Your task to perform on an android device: Turn on the flashlight Image 0: 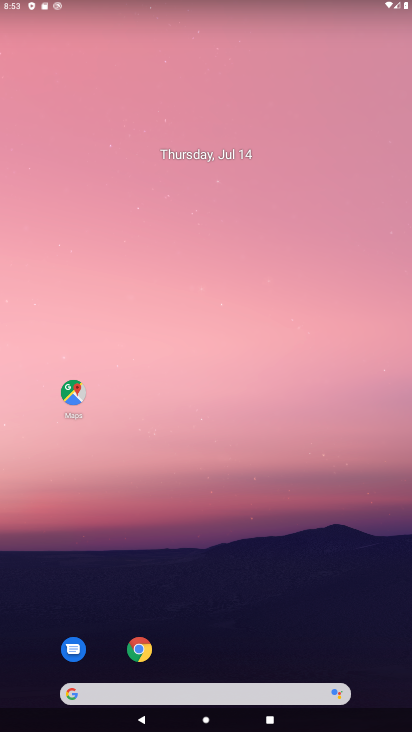
Step 0: drag from (232, 333) to (201, 96)
Your task to perform on an android device: Turn on the flashlight Image 1: 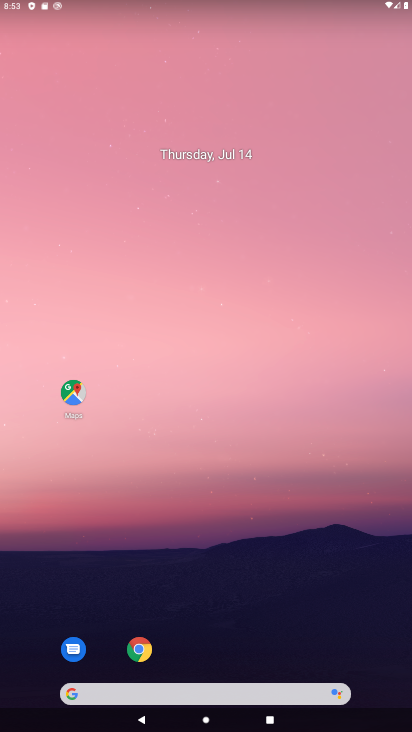
Step 1: task complete